Your task to perform on an android device: Go to accessibility settings Image 0: 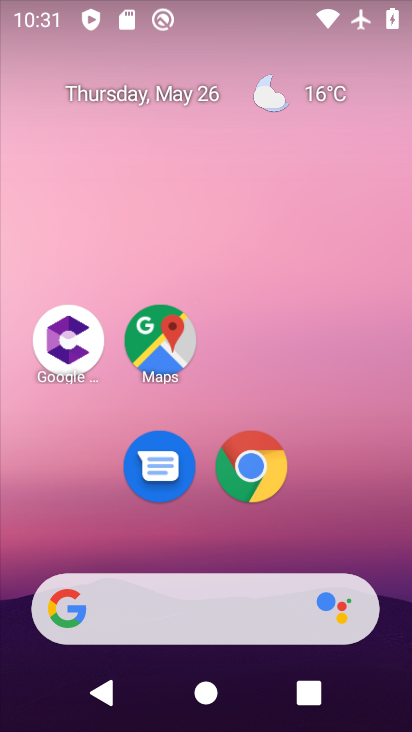
Step 0: drag from (342, 484) to (218, 80)
Your task to perform on an android device: Go to accessibility settings Image 1: 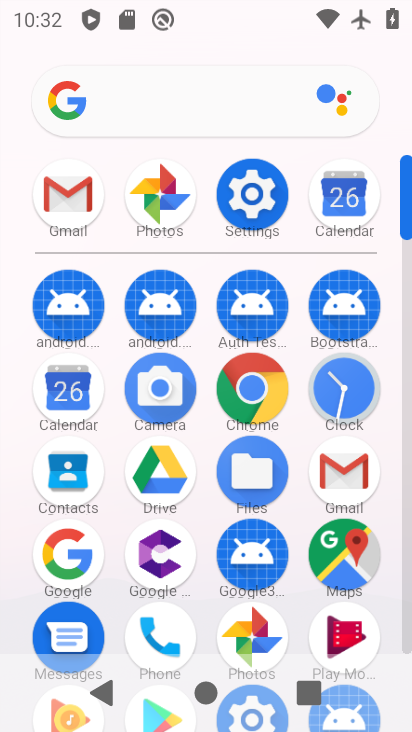
Step 1: click (254, 183)
Your task to perform on an android device: Go to accessibility settings Image 2: 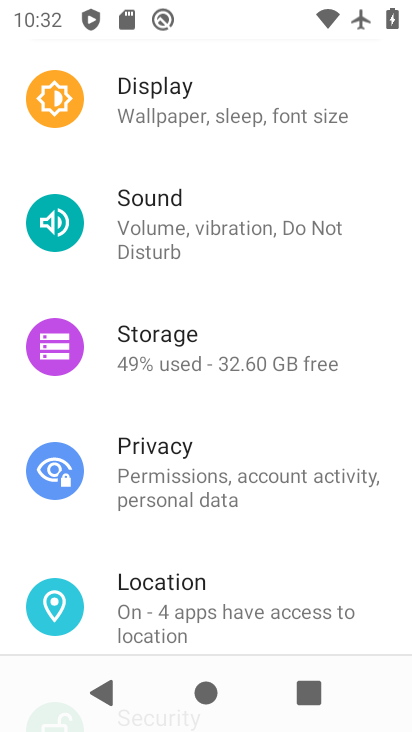
Step 2: drag from (251, 518) to (168, 174)
Your task to perform on an android device: Go to accessibility settings Image 3: 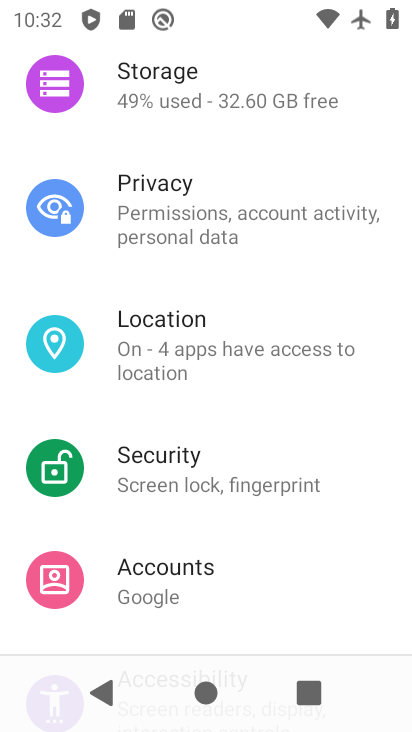
Step 3: drag from (240, 551) to (194, 242)
Your task to perform on an android device: Go to accessibility settings Image 4: 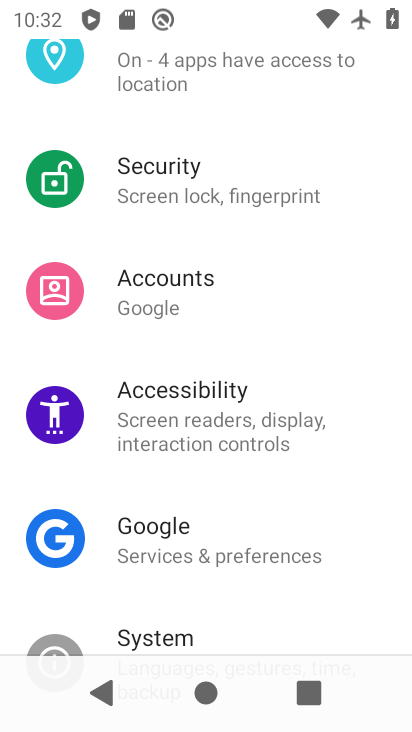
Step 4: click (181, 398)
Your task to perform on an android device: Go to accessibility settings Image 5: 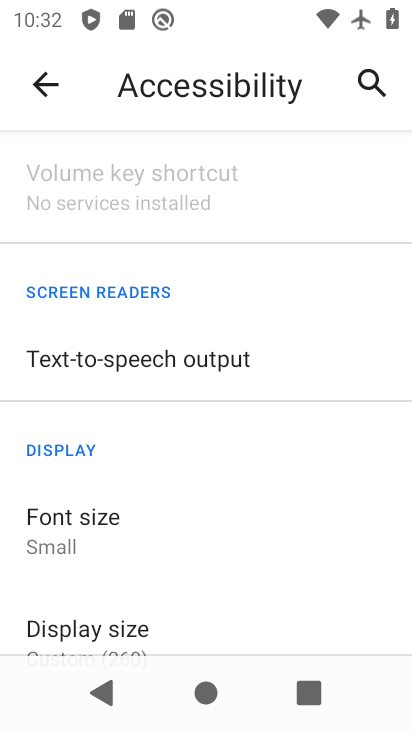
Step 5: task complete